Your task to perform on an android device: Open privacy settings Image 0: 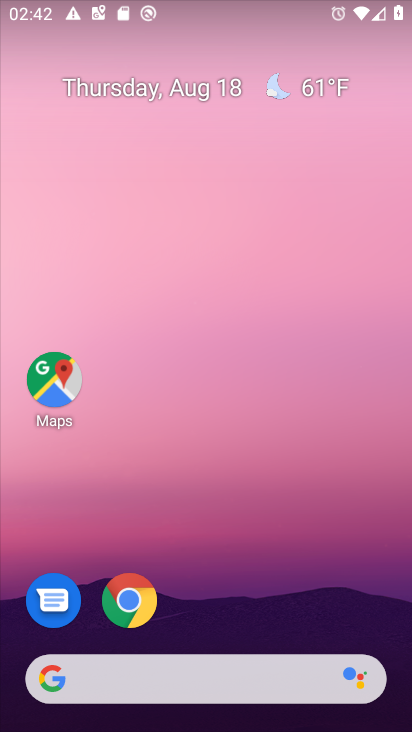
Step 0: press home button
Your task to perform on an android device: Open privacy settings Image 1: 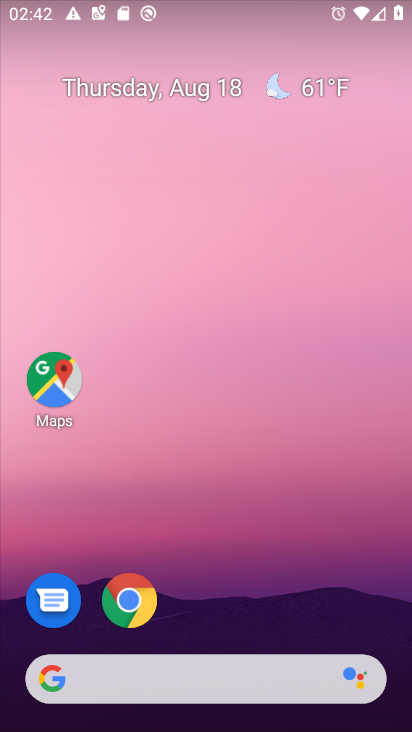
Step 1: drag from (251, 561) to (272, 113)
Your task to perform on an android device: Open privacy settings Image 2: 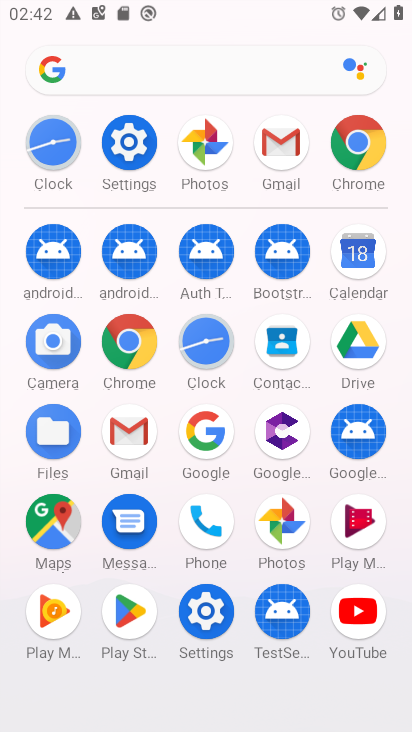
Step 2: click (120, 144)
Your task to perform on an android device: Open privacy settings Image 3: 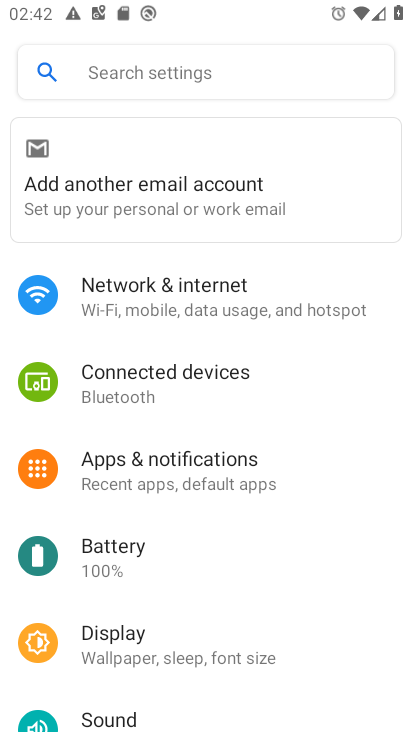
Step 3: drag from (154, 576) to (164, 211)
Your task to perform on an android device: Open privacy settings Image 4: 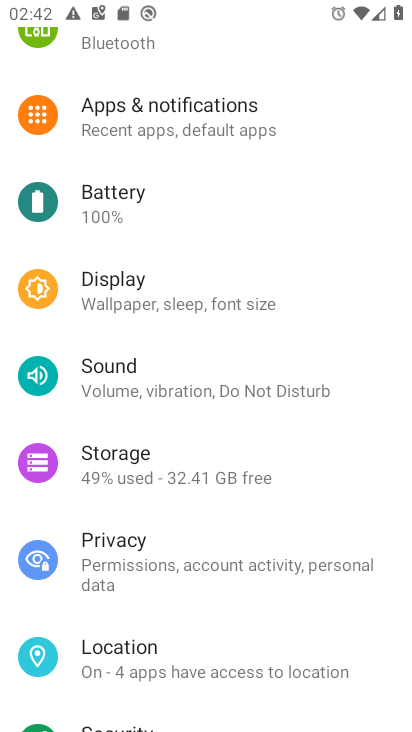
Step 4: click (130, 563)
Your task to perform on an android device: Open privacy settings Image 5: 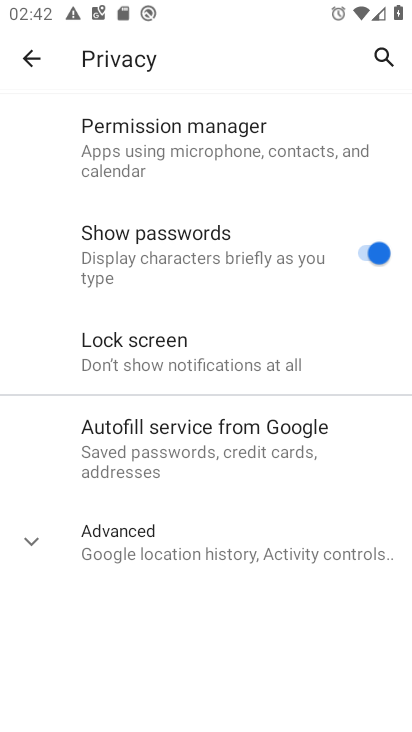
Step 5: task complete